Your task to perform on an android device: Go to Yahoo.com Image 0: 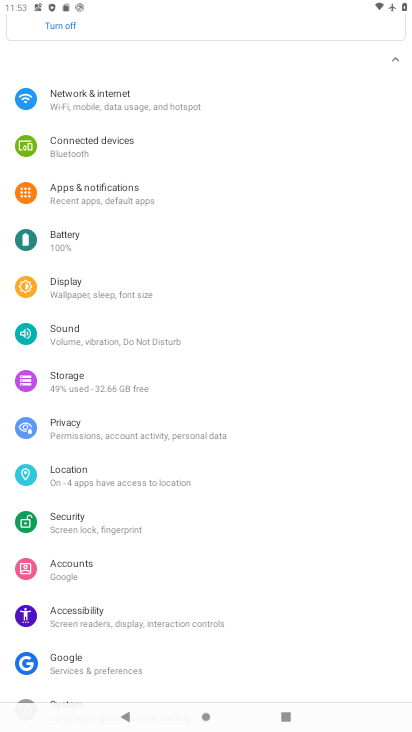
Step 0: press back button
Your task to perform on an android device: Go to Yahoo.com Image 1: 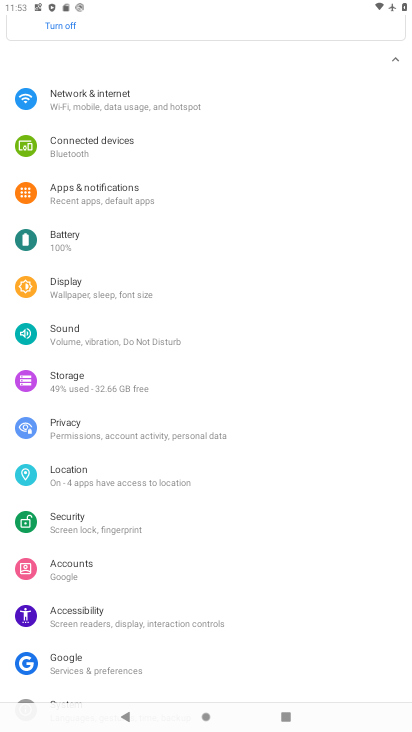
Step 1: press back button
Your task to perform on an android device: Go to Yahoo.com Image 2: 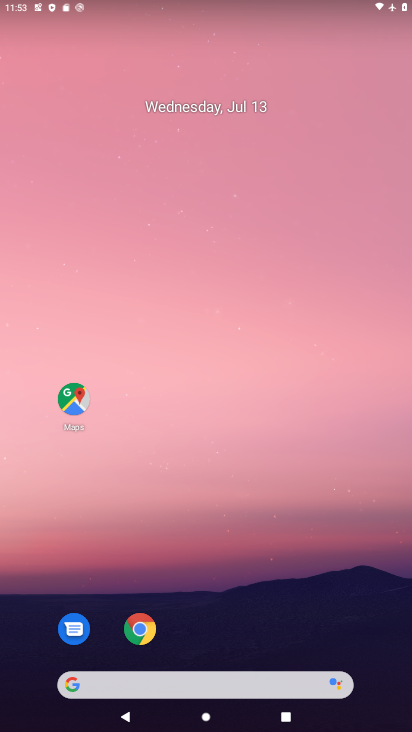
Step 2: drag from (268, 615) to (258, 191)
Your task to perform on an android device: Go to Yahoo.com Image 3: 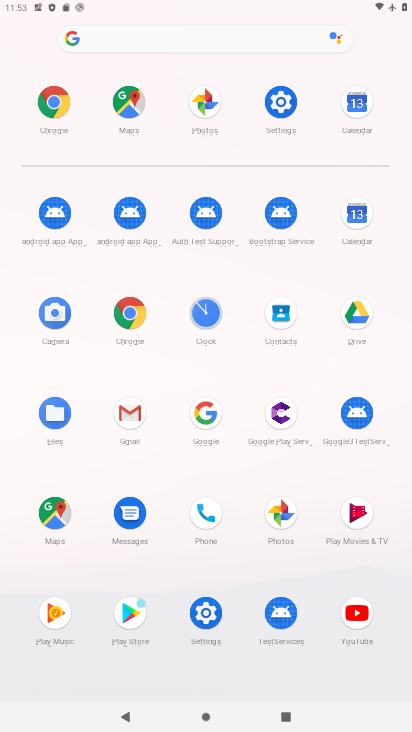
Step 3: click (127, 315)
Your task to perform on an android device: Go to Yahoo.com Image 4: 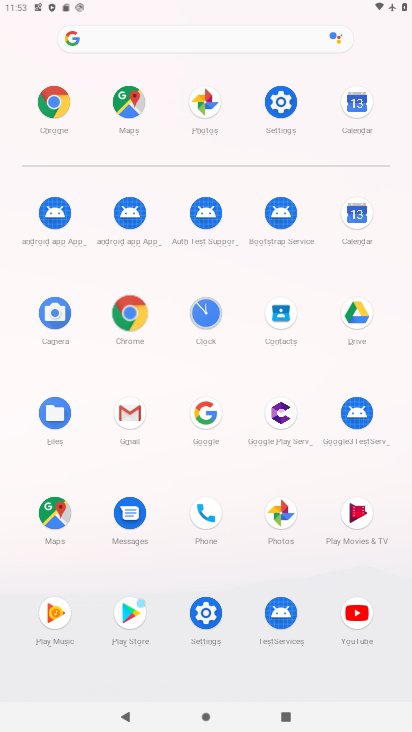
Step 4: click (127, 315)
Your task to perform on an android device: Go to Yahoo.com Image 5: 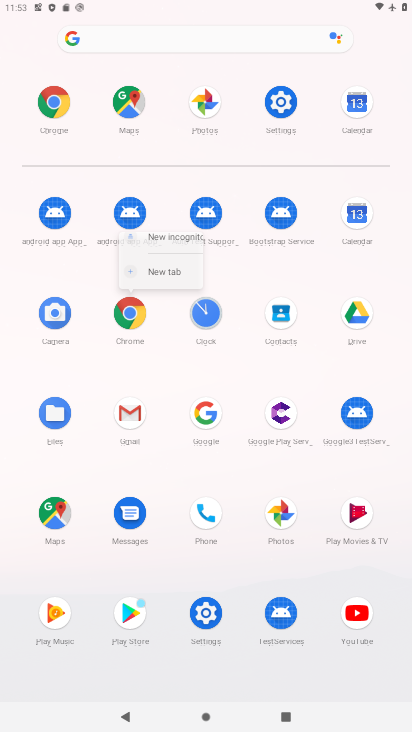
Step 5: click (127, 315)
Your task to perform on an android device: Go to Yahoo.com Image 6: 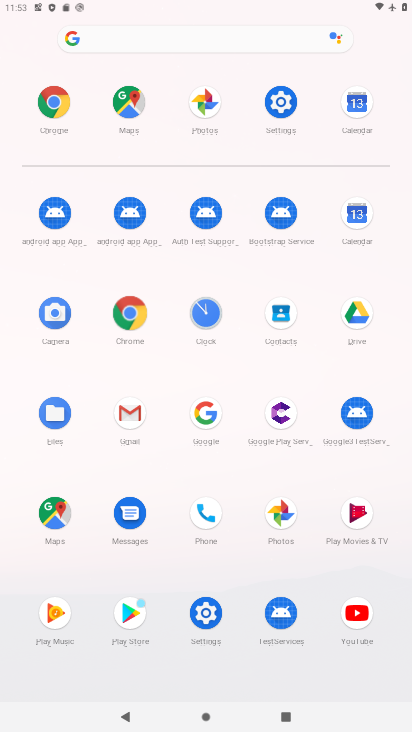
Step 6: click (127, 315)
Your task to perform on an android device: Go to Yahoo.com Image 7: 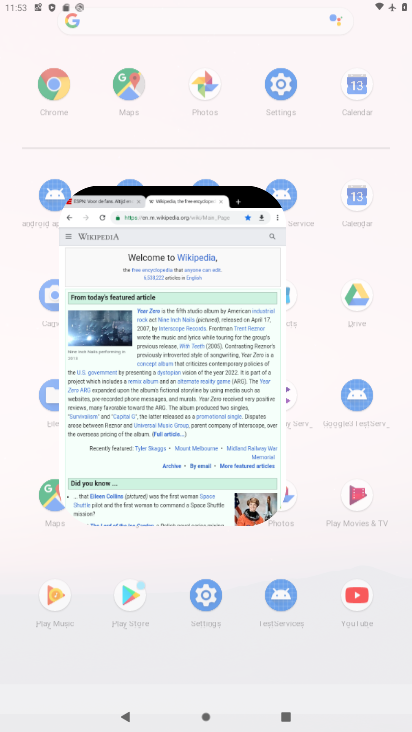
Step 7: click (127, 315)
Your task to perform on an android device: Go to Yahoo.com Image 8: 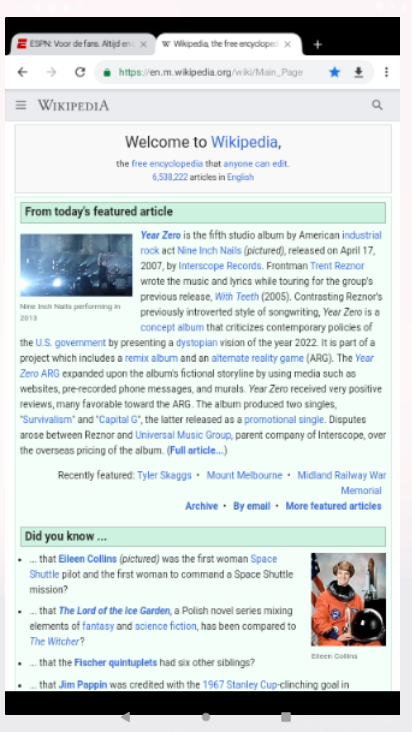
Step 8: click (133, 317)
Your task to perform on an android device: Go to Yahoo.com Image 9: 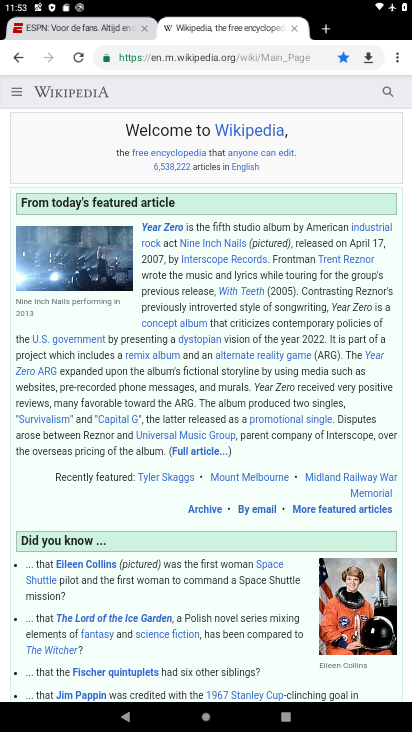
Step 9: click (11, 52)
Your task to perform on an android device: Go to Yahoo.com Image 10: 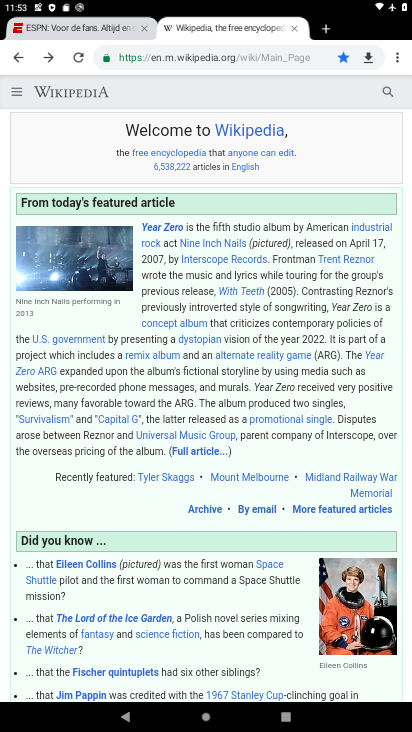
Step 10: drag from (401, 58) to (278, 56)
Your task to perform on an android device: Go to Yahoo.com Image 11: 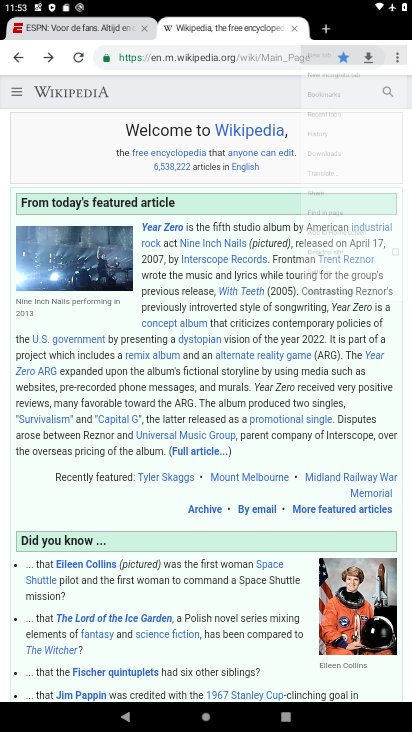
Step 11: click (279, 53)
Your task to perform on an android device: Go to Yahoo.com Image 12: 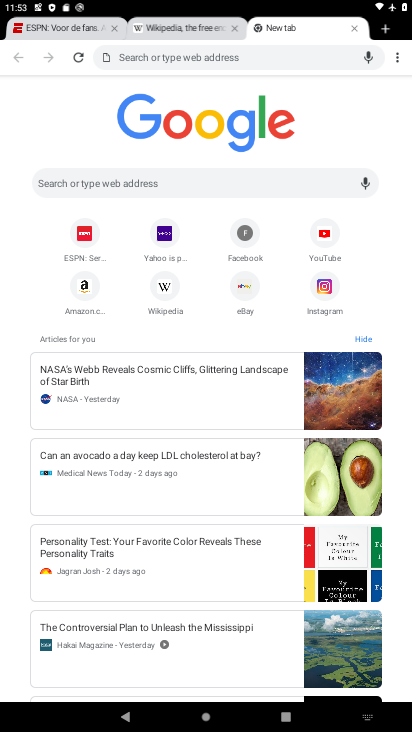
Step 12: click (170, 237)
Your task to perform on an android device: Go to Yahoo.com Image 13: 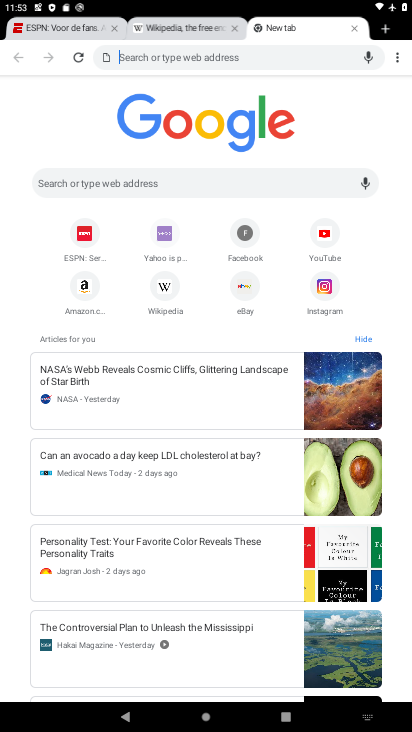
Step 13: click (169, 236)
Your task to perform on an android device: Go to Yahoo.com Image 14: 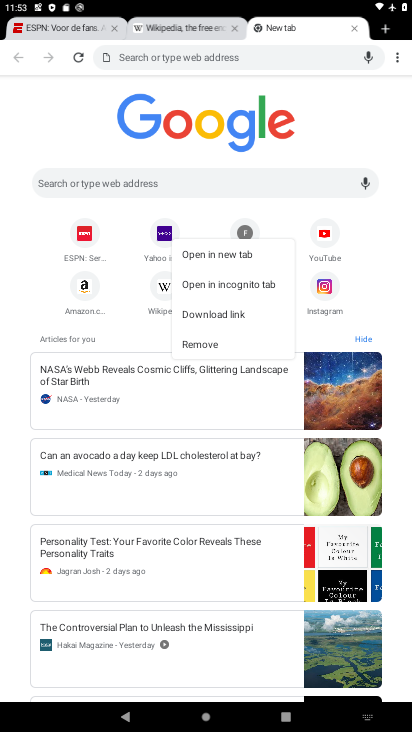
Step 14: click (170, 236)
Your task to perform on an android device: Go to Yahoo.com Image 15: 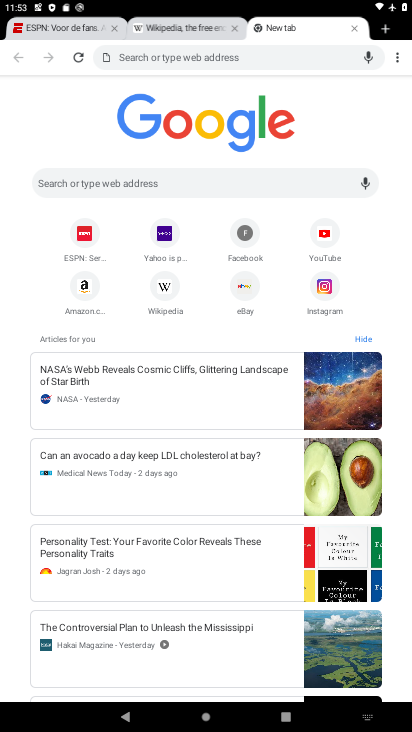
Step 15: click (174, 235)
Your task to perform on an android device: Go to Yahoo.com Image 16: 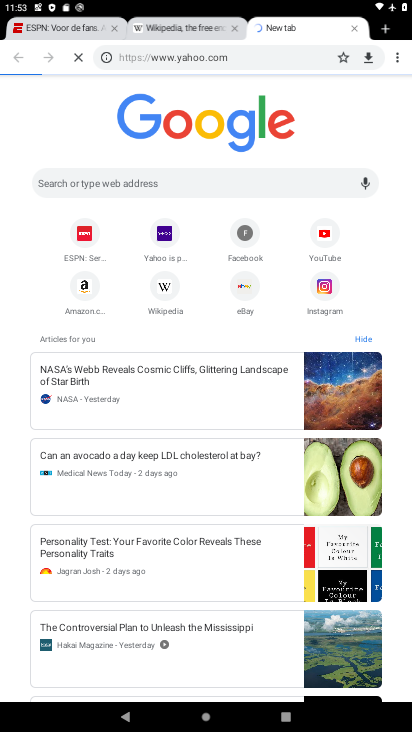
Step 16: click (178, 236)
Your task to perform on an android device: Go to Yahoo.com Image 17: 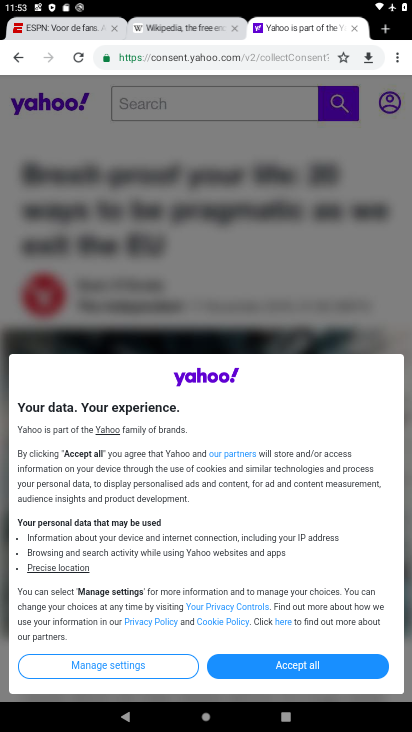
Step 17: task complete